Your task to perform on an android device: Open Google Chrome and click the shortcut for Amazon.com Image 0: 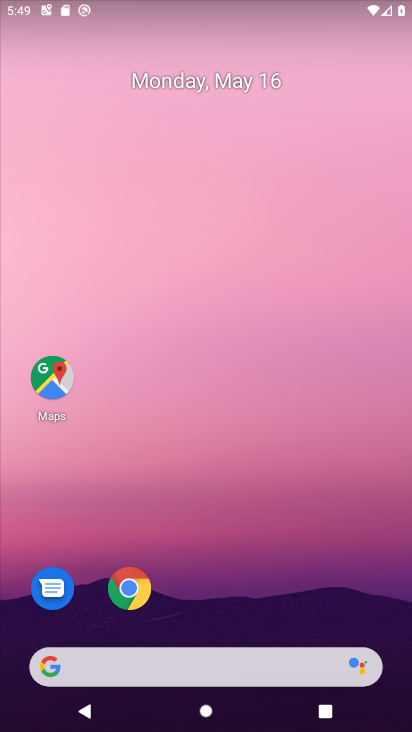
Step 0: click (132, 588)
Your task to perform on an android device: Open Google Chrome and click the shortcut for Amazon.com Image 1: 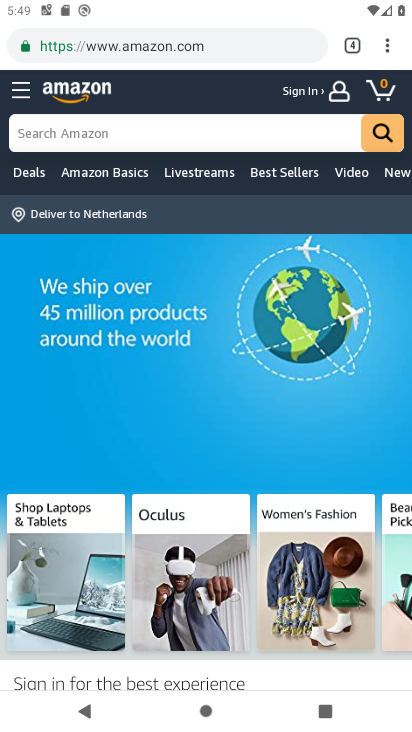
Step 1: task complete